Your task to perform on an android device: turn on sleep mode Image 0: 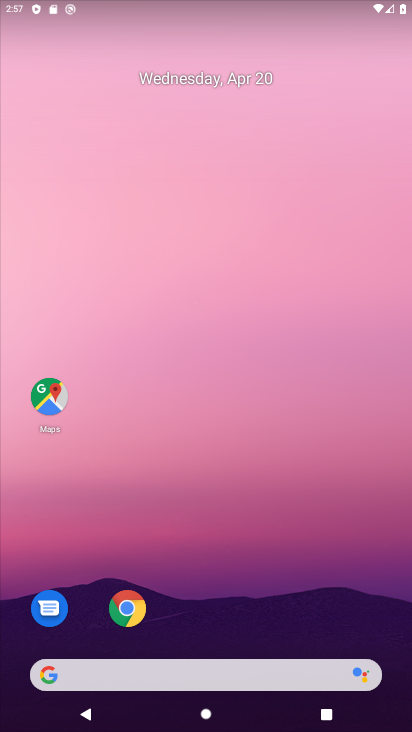
Step 0: drag from (186, 601) to (101, 9)
Your task to perform on an android device: turn on sleep mode Image 1: 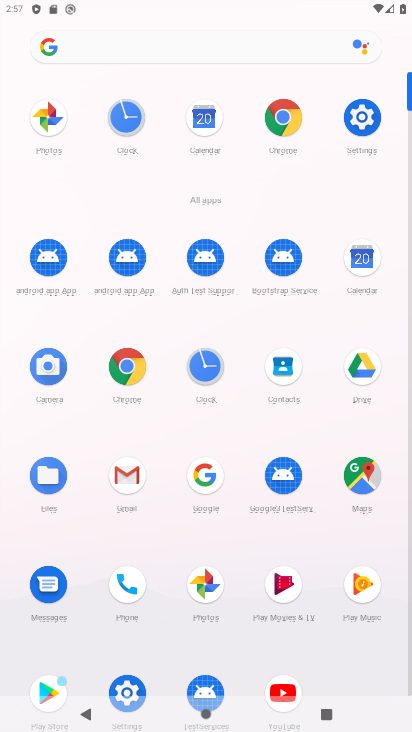
Step 1: click (361, 123)
Your task to perform on an android device: turn on sleep mode Image 2: 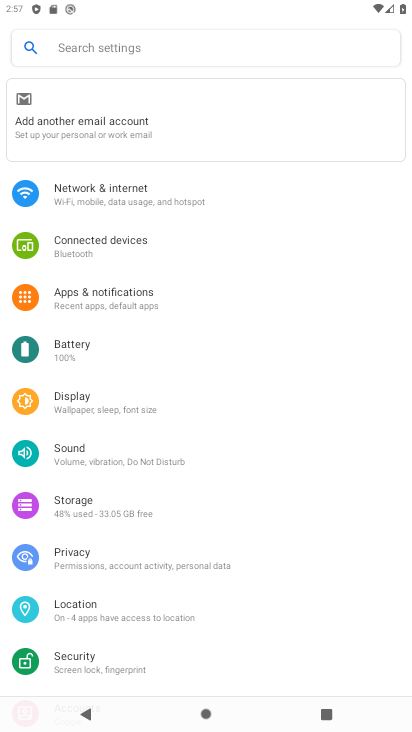
Step 2: click (86, 406)
Your task to perform on an android device: turn on sleep mode Image 3: 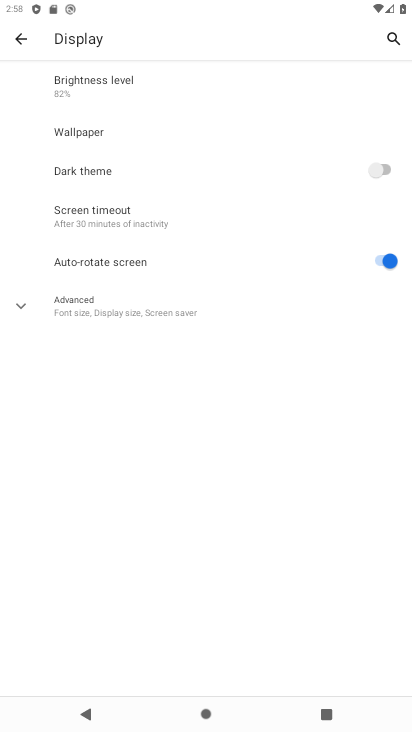
Step 3: task complete